Your task to perform on an android device: install app "Upside-Cash back on gas & food" Image 0: 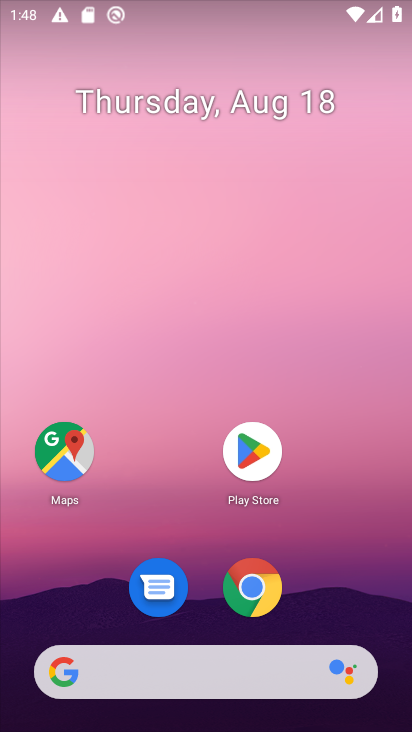
Step 0: click (261, 448)
Your task to perform on an android device: install app "Upside-Cash back on gas & food" Image 1: 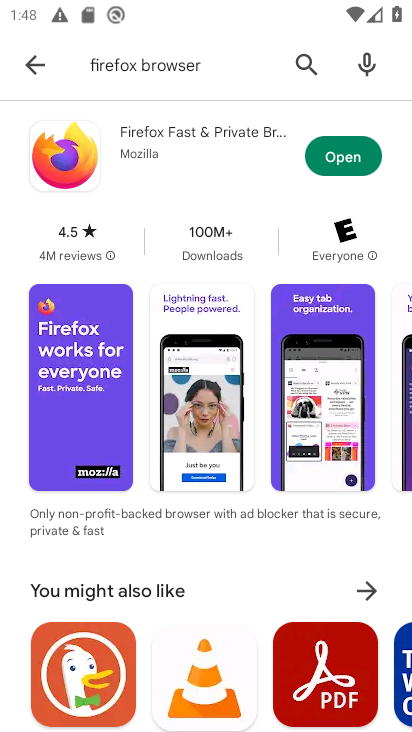
Step 1: click (308, 62)
Your task to perform on an android device: install app "Upside-Cash back on gas & food" Image 2: 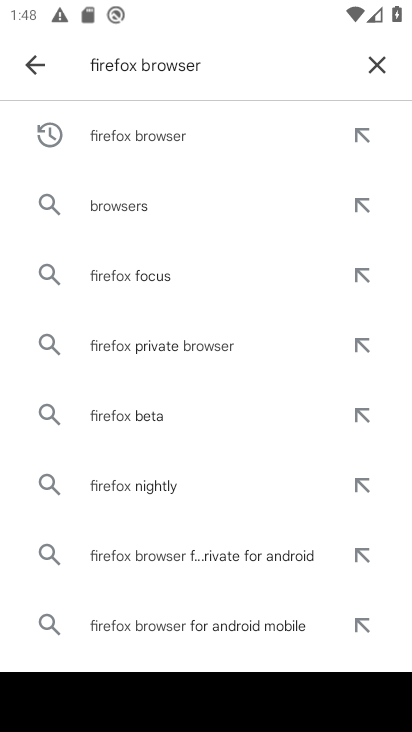
Step 2: click (376, 63)
Your task to perform on an android device: install app "Upside-Cash back on gas & food" Image 3: 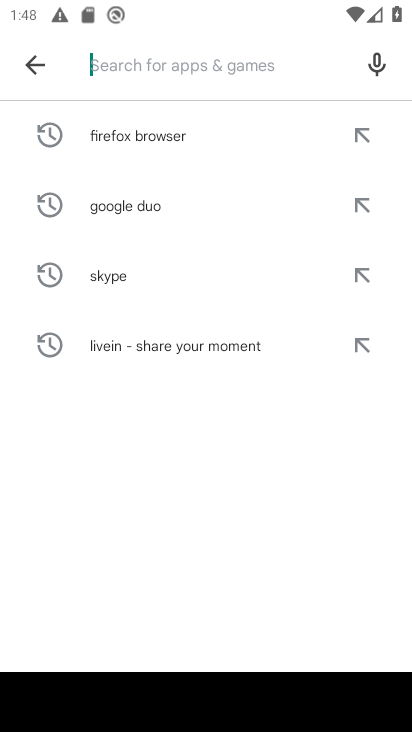
Step 3: type "Upside-Cash back on gas & food"
Your task to perform on an android device: install app "Upside-Cash back on gas & food" Image 4: 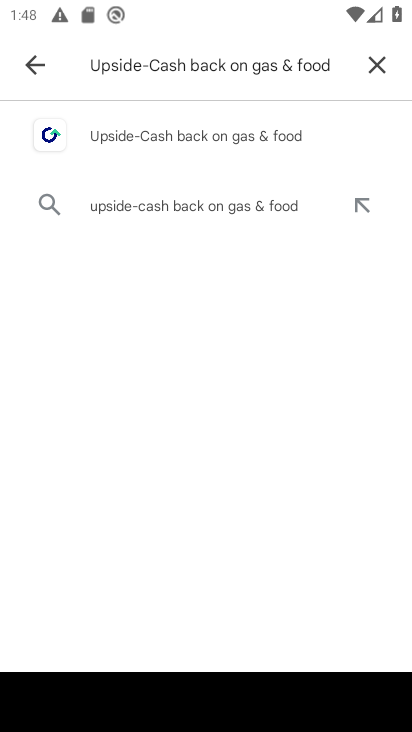
Step 4: click (261, 139)
Your task to perform on an android device: install app "Upside-Cash back on gas & food" Image 5: 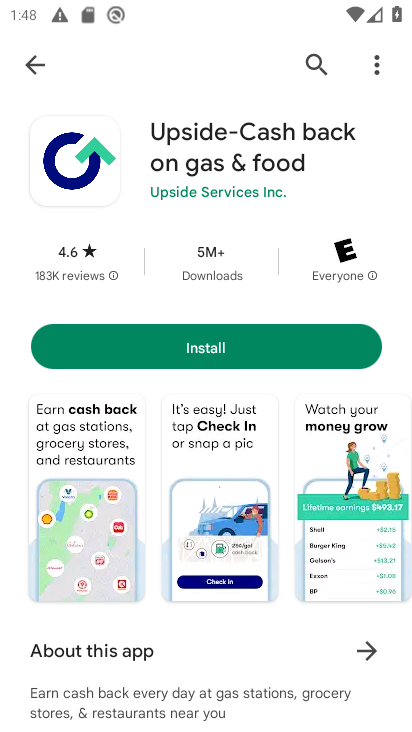
Step 5: click (183, 340)
Your task to perform on an android device: install app "Upside-Cash back on gas & food" Image 6: 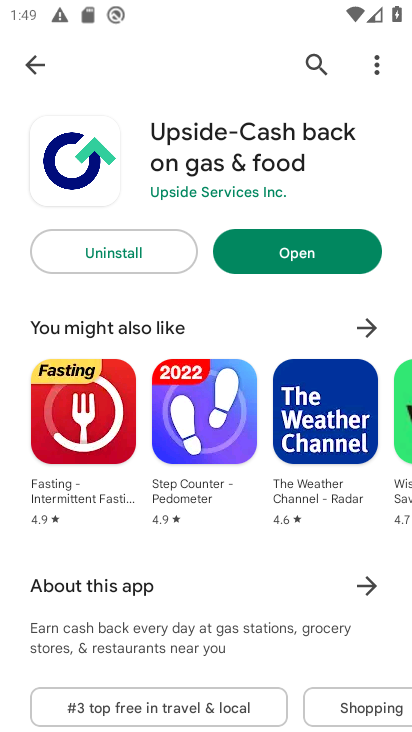
Step 6: task complete